Your task to perform on an android device: toggle sleep mode Image 0: 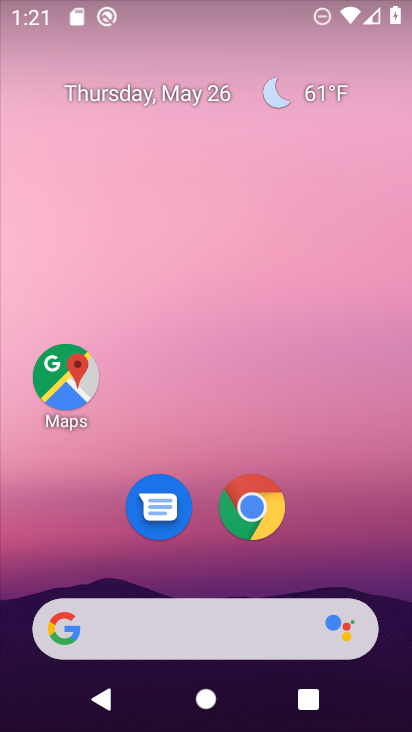
Step 0: drag from (353, 586) to (279, 127)
Your task to perform on an android device: toggle sleep mode Image 1: 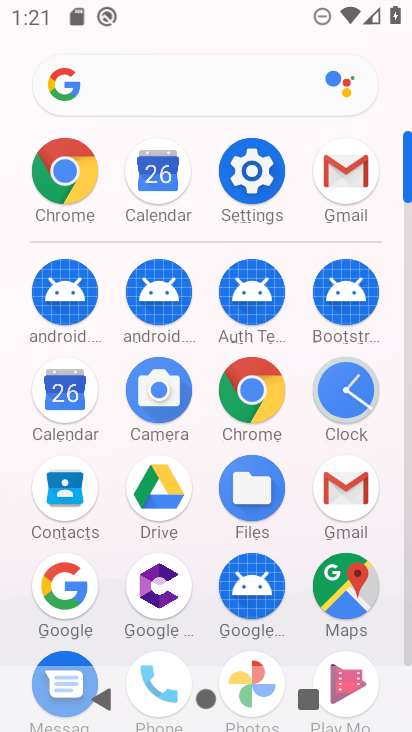
Step 1: click (235, 215)
Your task to perform on an android device: toggle sleep mode Image 2: 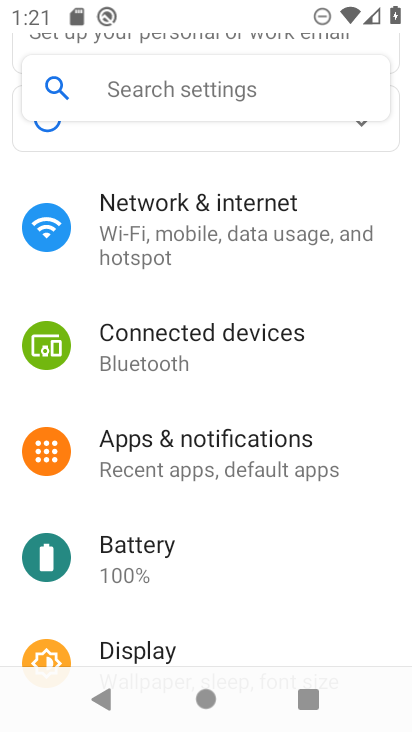
Step 2: drag from (200, 482) to (203, 160)
Your task to perform on an android device: toggle sleep mode Image 3: 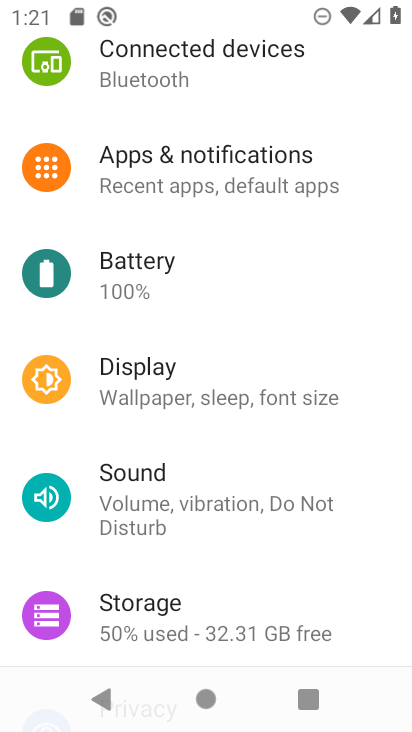
Step 3: click (208, 381)
Your task to perform on an android device: toggle sleep mode Image 4: 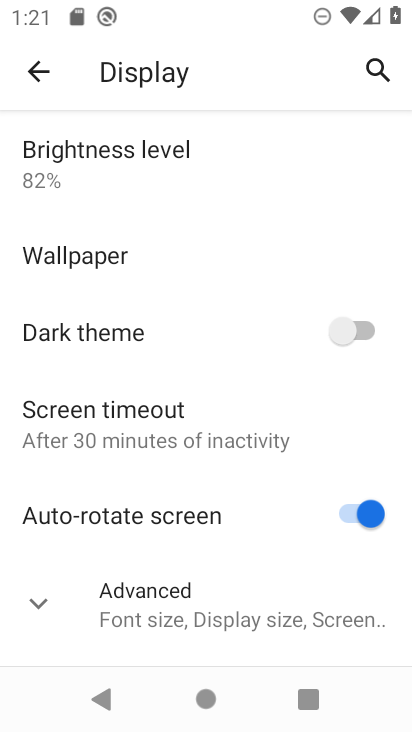
Step 4: drag from (184, 560) to (194, 368)
Your task to perform on an android device: toggle sleep mode Image 5: 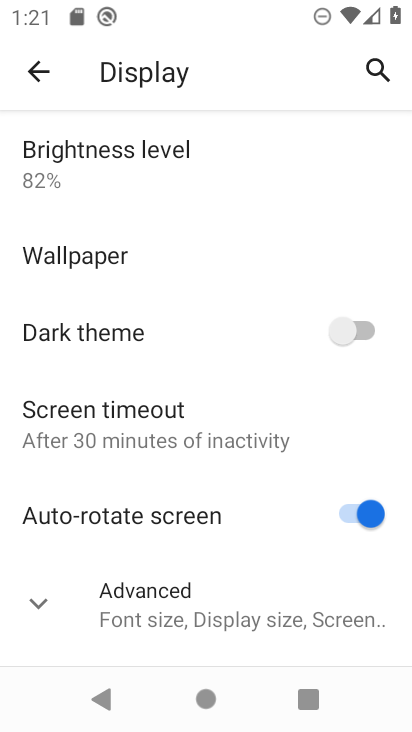
Step 5: click (229, 403)
Your task to perform on an android device: toggle sleep mode Image 6: 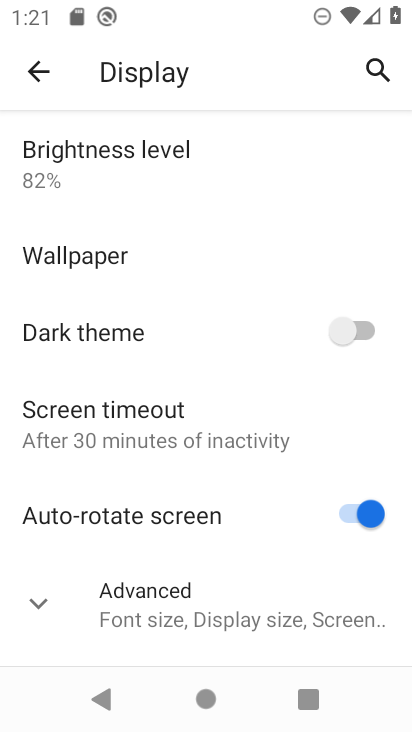
Step 6: click (229, 403)
Your task to perform on an android device: toggle sleep mode Image 7: 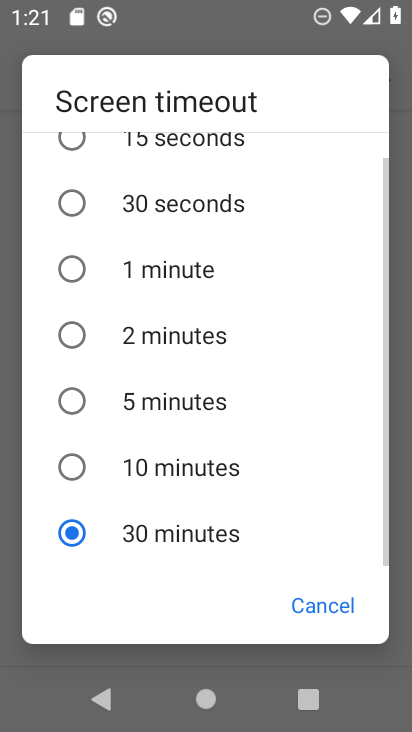
Step 7: task complete